Your task to perform on an android device: open the mobile data screen to see how much data has been used Image 0: 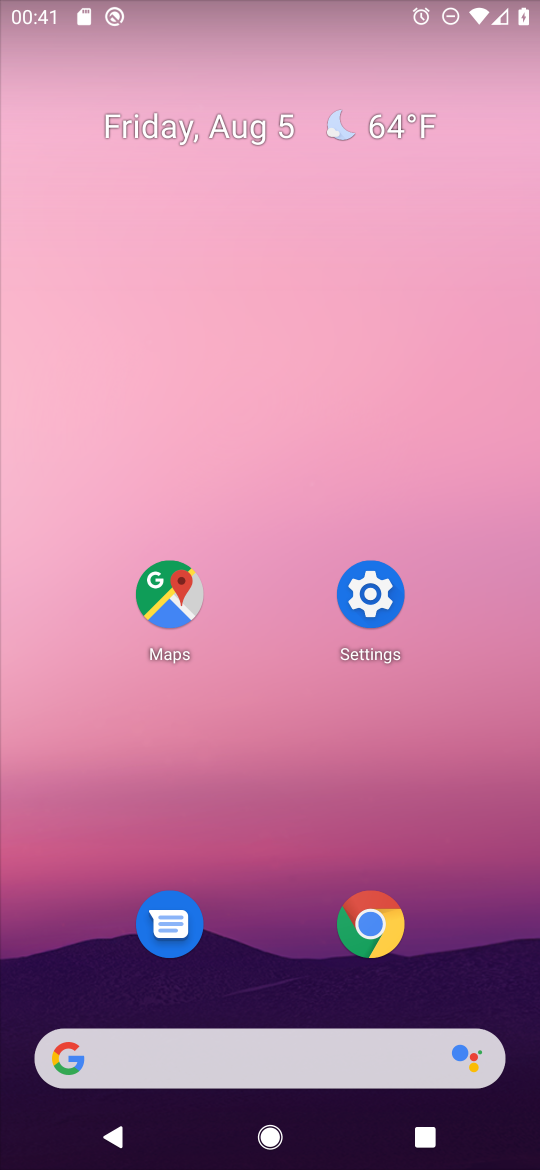
Step 0: drag from (281, 973) to (422, 287)
Your task to perform on an android device: open the mobile data screen to see how much data has been used Image 1: 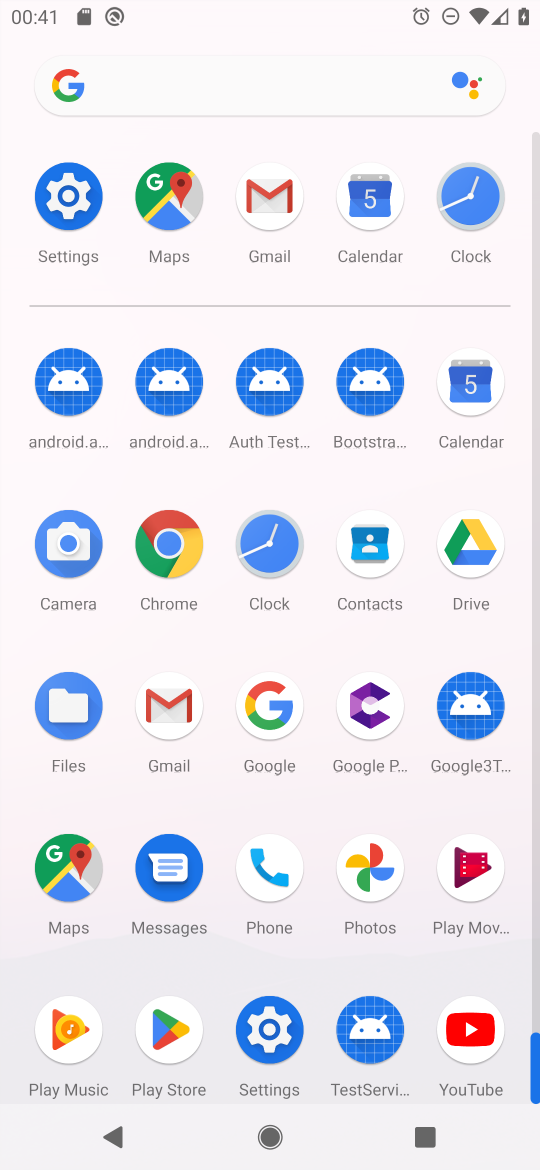
Step 1: click (64, 207)
Your task to perform on an android device: open the mobile data screen to see how much data has been used Image 2: 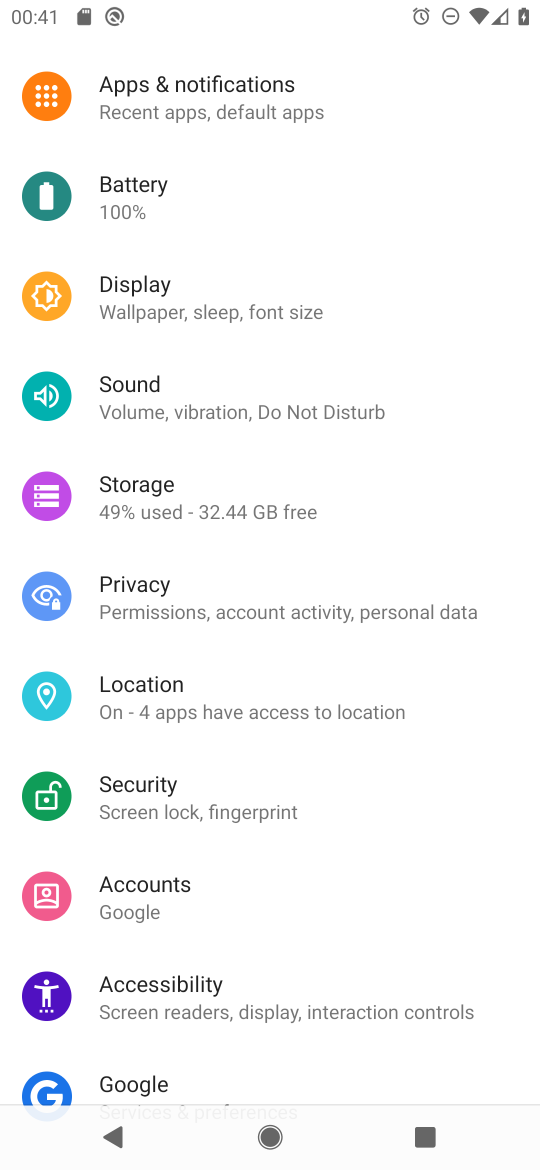
Step 2: drag from (424, 208) to (386, 847)
Your task to perform on an android device: open the mobile data screen to see how much data has been used Image 3: 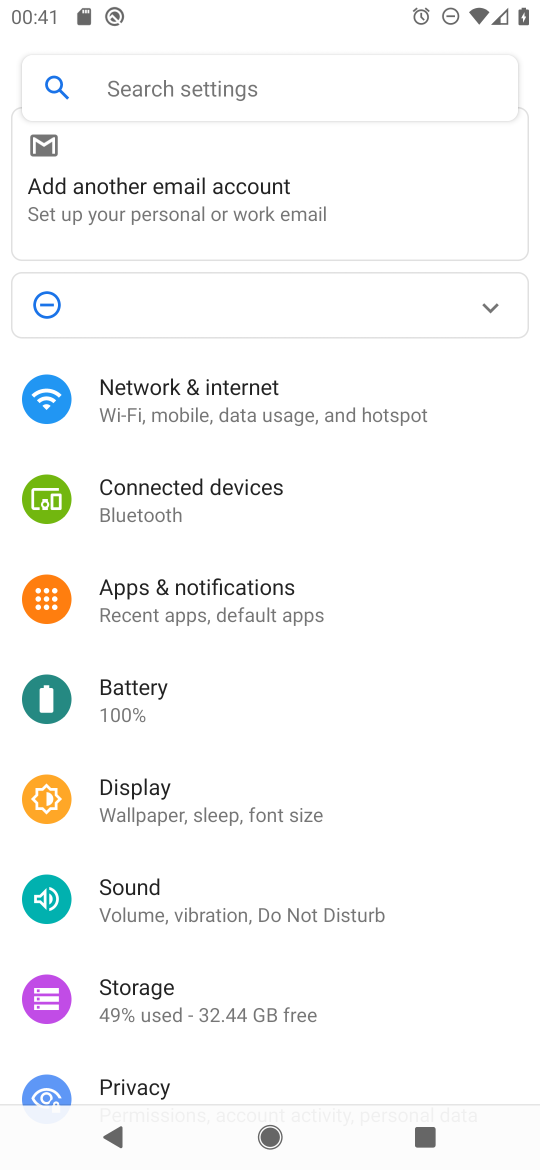
Step 3: click (220, 406)
Your task to perform on an android device: open the mobile data screen to see how much data has been used Image 4: 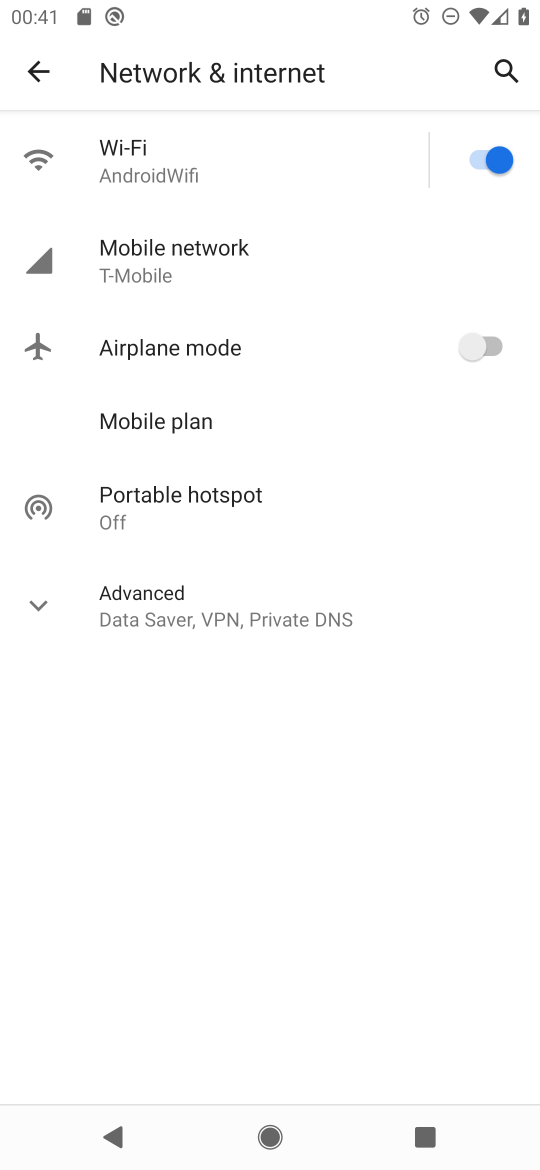
Step 4: click (193, 258)
Your task to perform on an android device: open the mobile data screen to see how much data has been used Image 5: 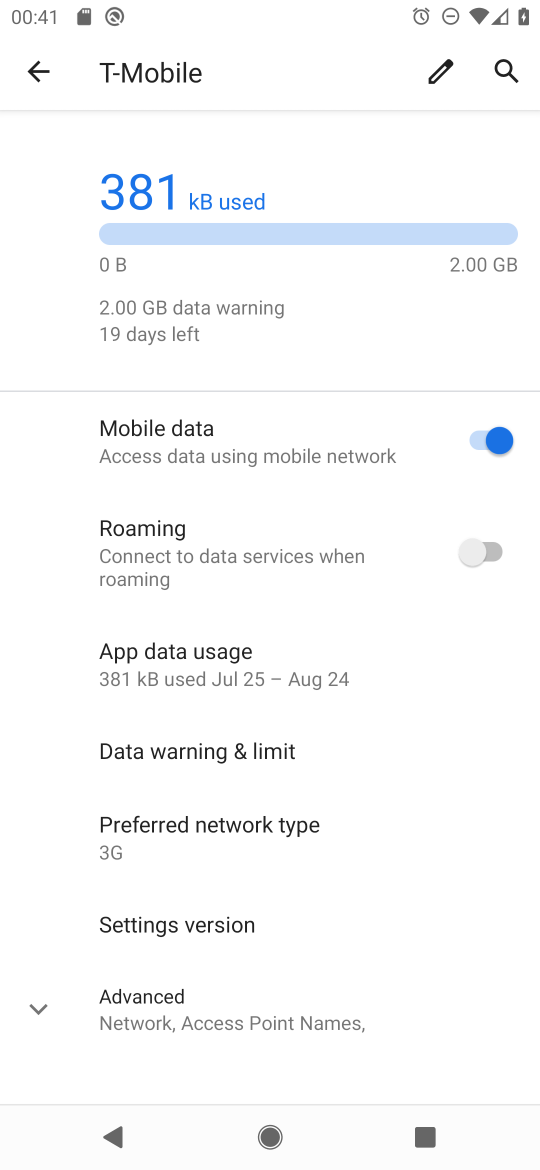
Step 5: task complete